Your task to perform on an android device: Open the map Image 0: 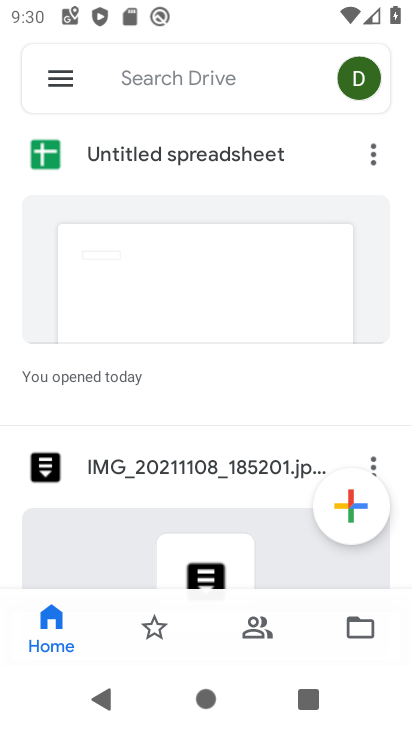
Step 0: press home button
Your task to perform on an android device: Open the map Image 1: 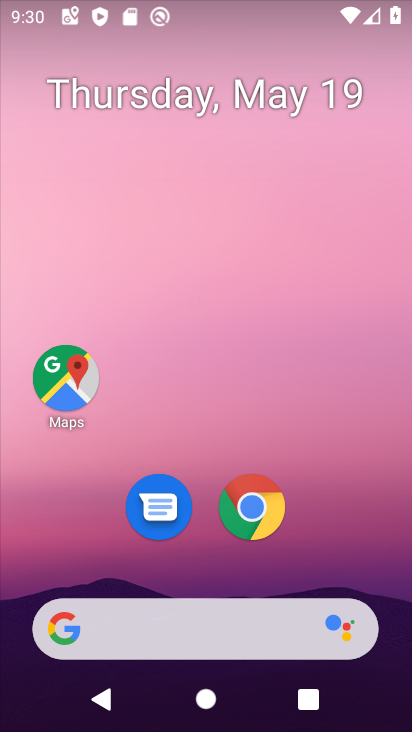
Step 1: click (63, 372)
Your task to perform on an android device: Open the map Image 2: 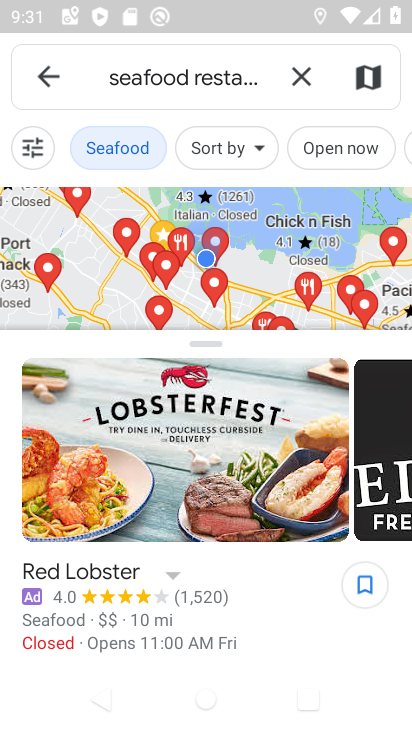
Step 2: click (299, 74)
Your task to perform on an android device: Open the map Image 3: 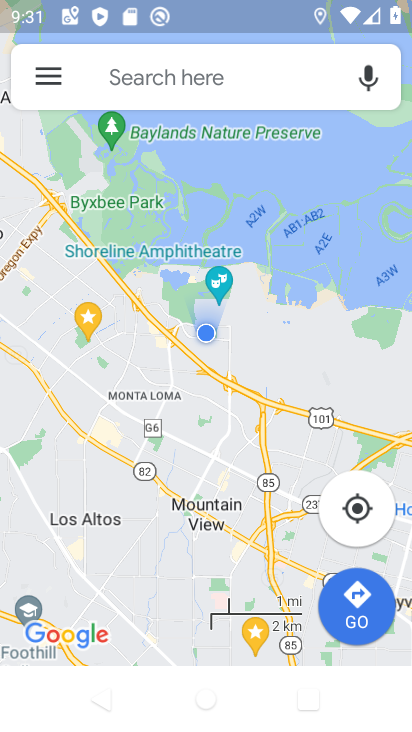
Step 3: task complete